Your task to perform on an android device: change the clock style Image 0: 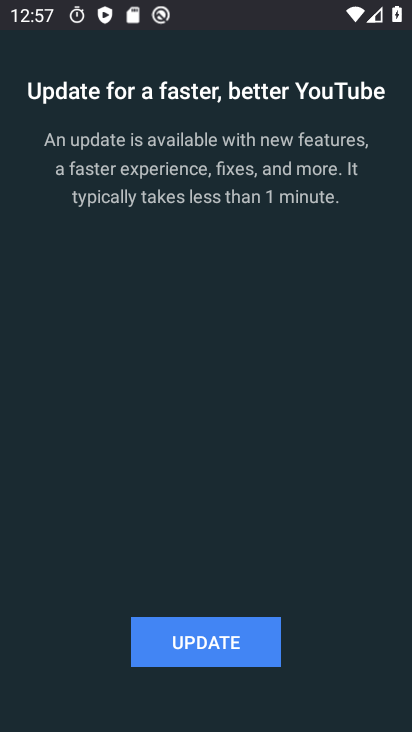
Step 0: press home button
Your task to perform on an android device: change the clock style Image 1: 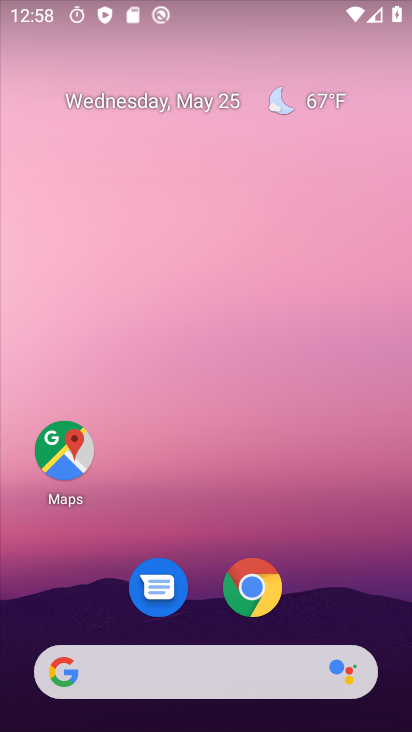
Step 1: drag from (207, 720) to (207, 343)
Your task to perform on an android device: change the clock style Image 2: 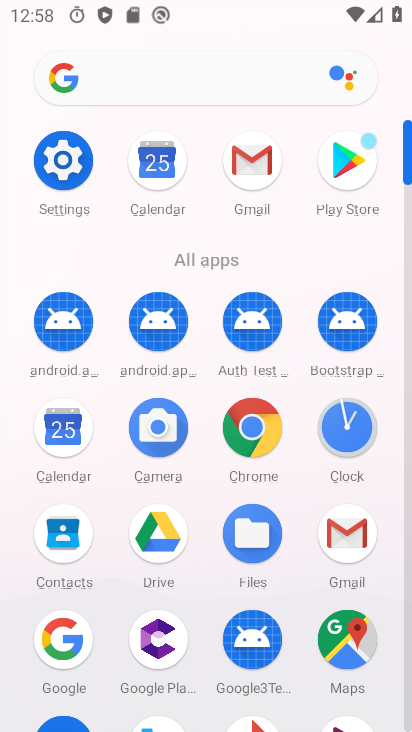
Step 2: click (346, 427)
Your task to perform on an android device: change the clock style Image 3: 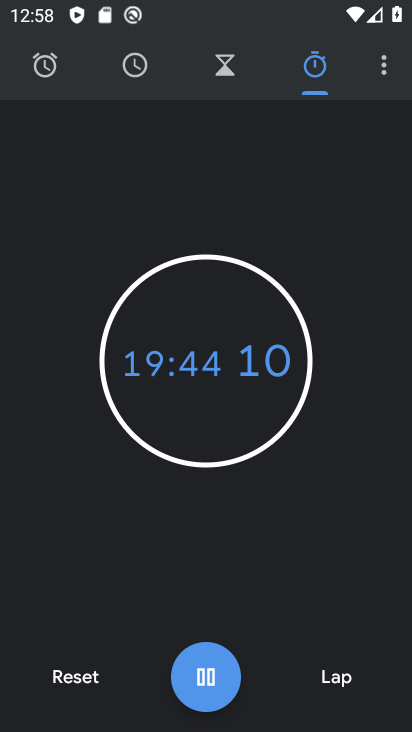
Step 3: click (382, 70)
Your task to perform on an android device: change the clock style Image 4: 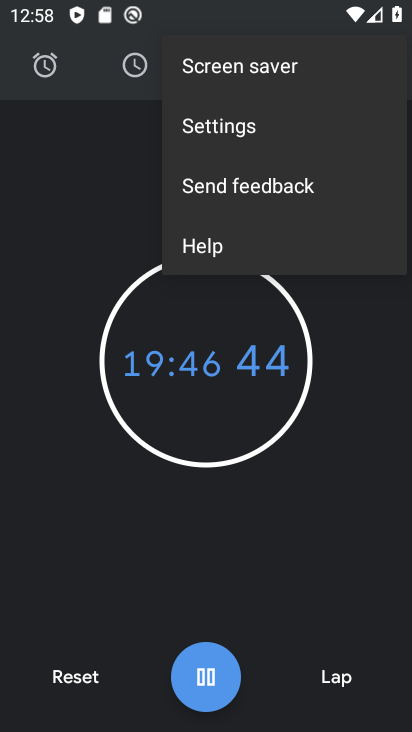
Step 4: click (214, 128)
Your task to perform on an android device: change the clock style Image 5: 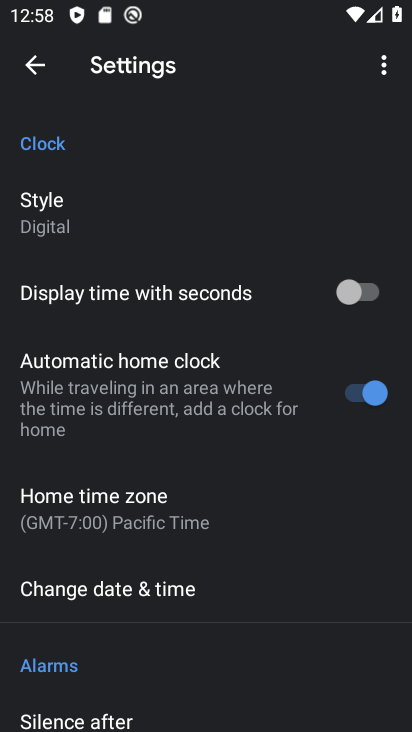
Step 5: click (45, 211)
Your task to perform on an android device: change the clock style Image 6: 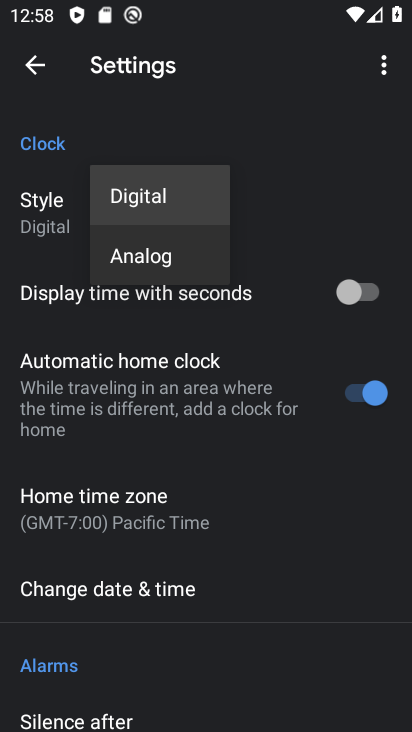
Step 6: click (131, 256)
Your task to perform on an android device: change the clock style Image 7: 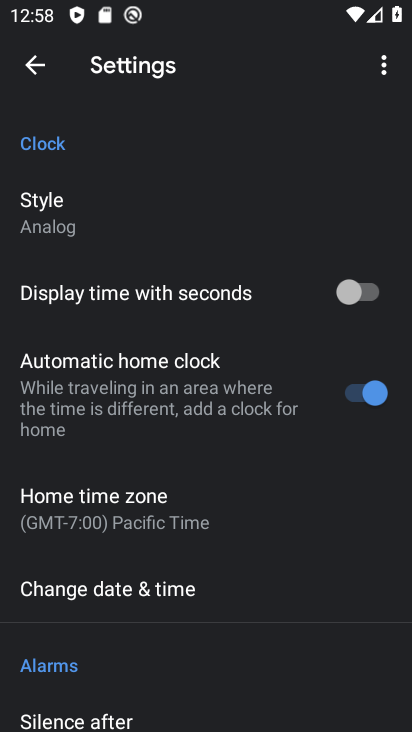
Step 7: task complete